Your task to perform on an android device: turn off picture-in-picture Image 0: 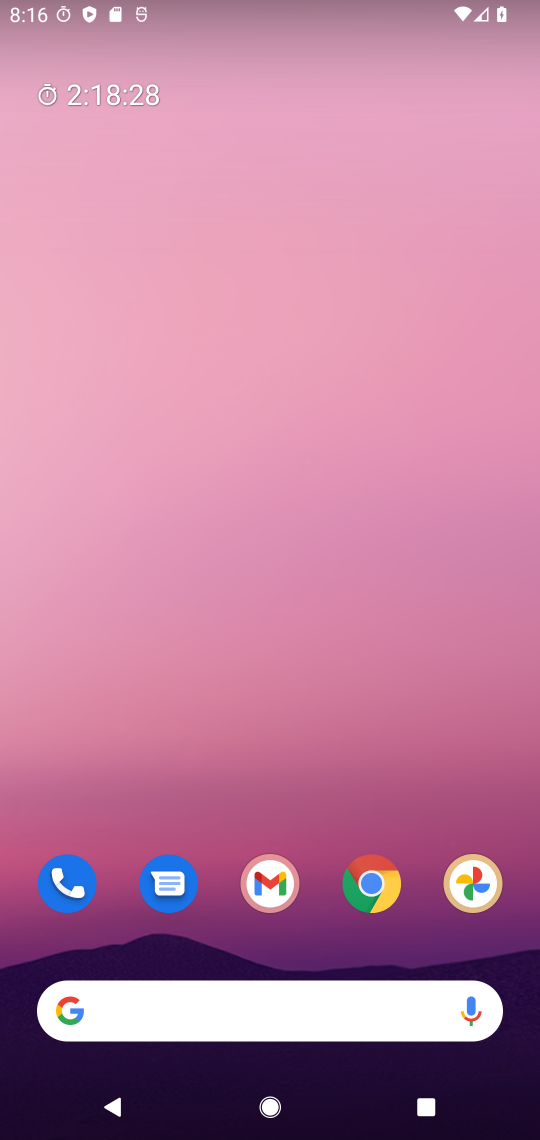
Step 0: click (372, 905)
Your task to perform on an android device: turn off picture-in-picture Image 1: 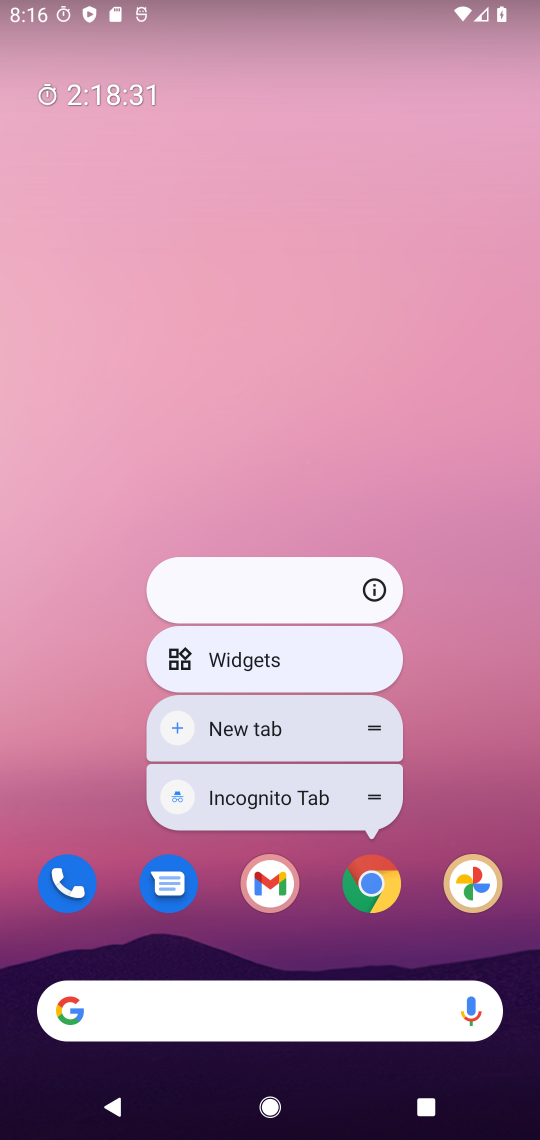
Step 1: click (376, 593)
Your task to perform on an android device: turn off picture-in-picture Image 2: 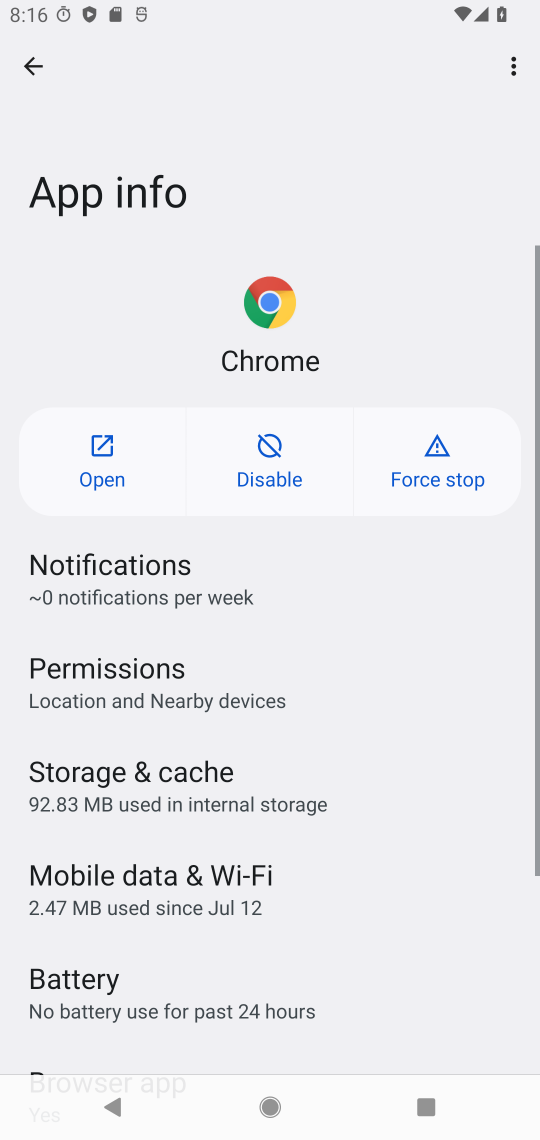
Step 2: drag from (249, 901) to (329, 359)
Your task to perform on an android device: turn off picture-in-picture Image 3: 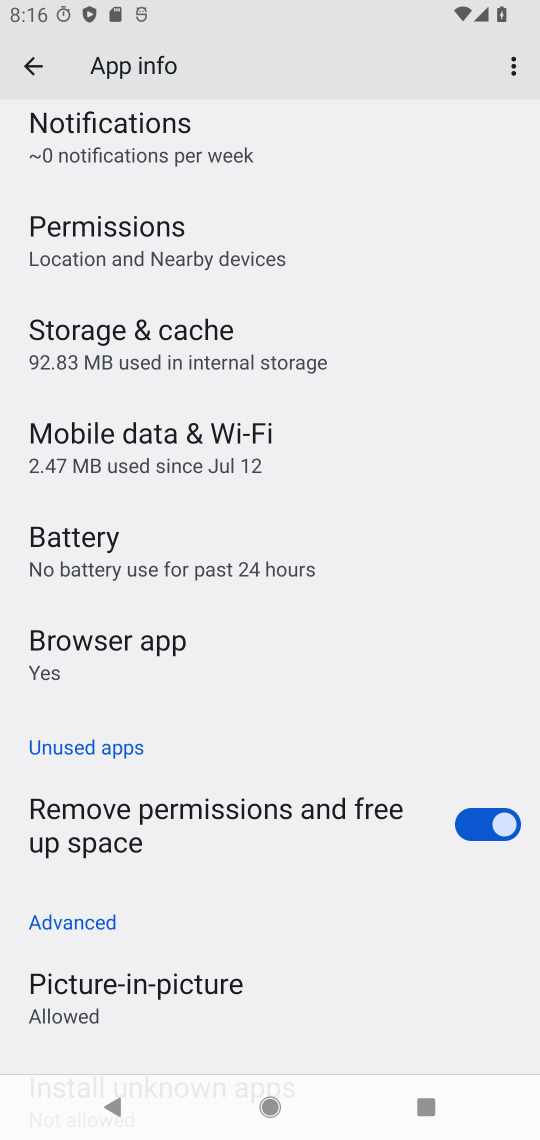
Step 3: drag from (280, 968) to (356, 370)
Your task to perform on an android device: turn off picture-in-picture Image 4: 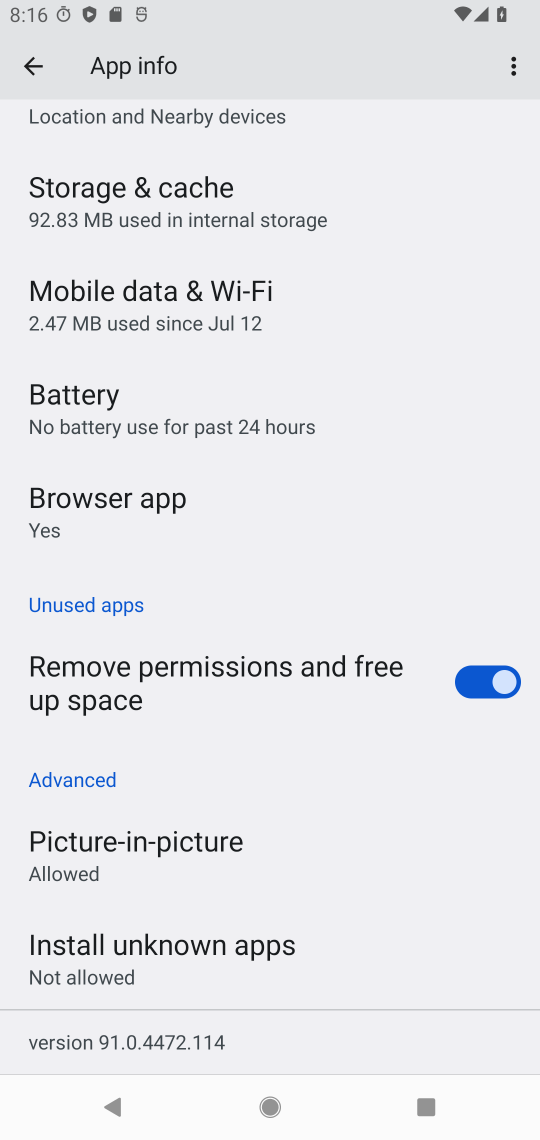
Step 4: click (160, 857)
Your task to perform on an android device: turn off picture-in-picture Image 5: 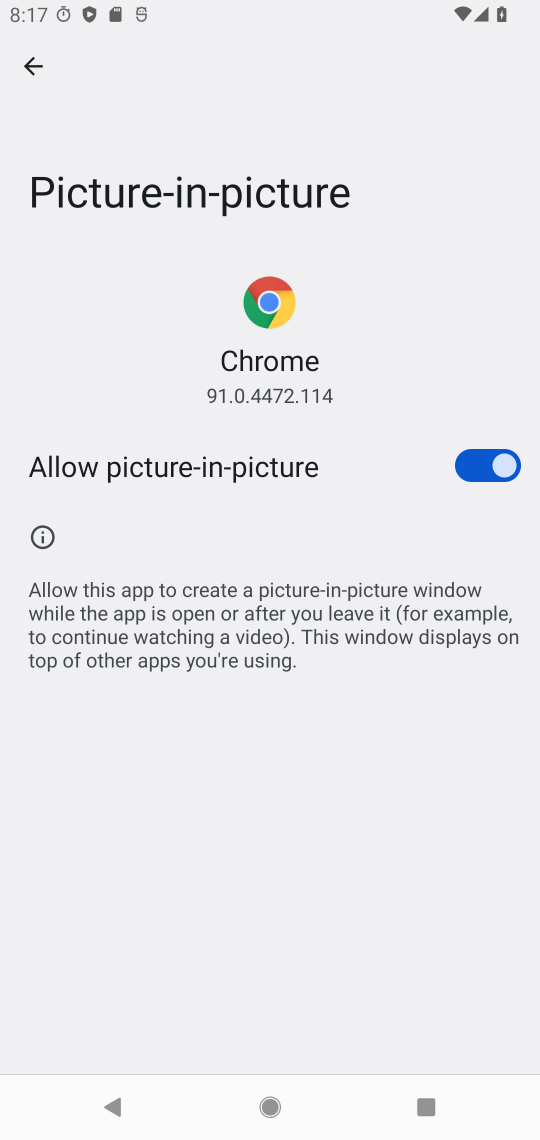
Step 5: click (469, 463)
Your task to perform on an android device: turn off picture-in-picture Image 6: 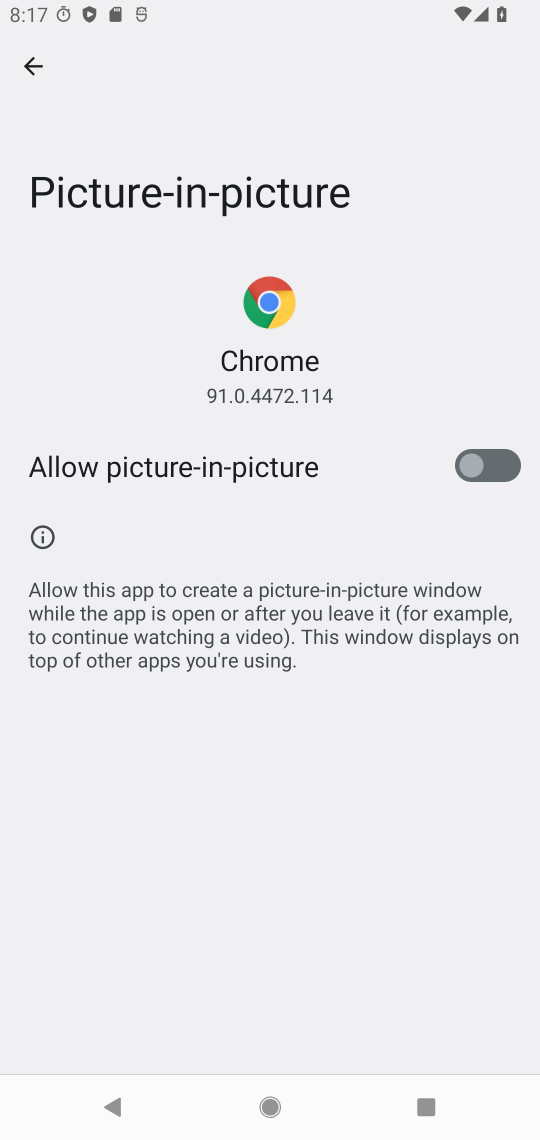
Step 6: task complete